Your task to perform on an android device: What's the news about the US stock market? Image 0: 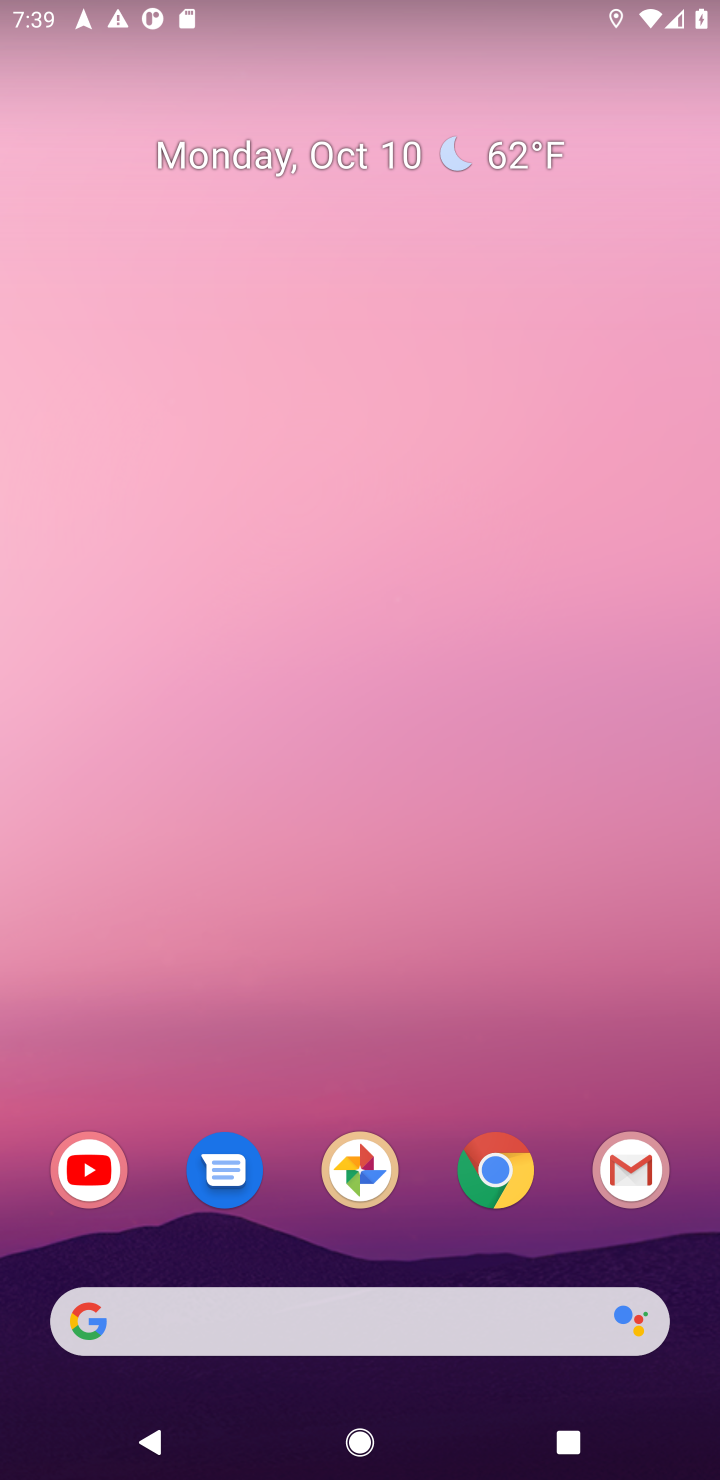
Step 0: press home button
Your task to perform on an android device: What's the news about the US stock market? Image 1: 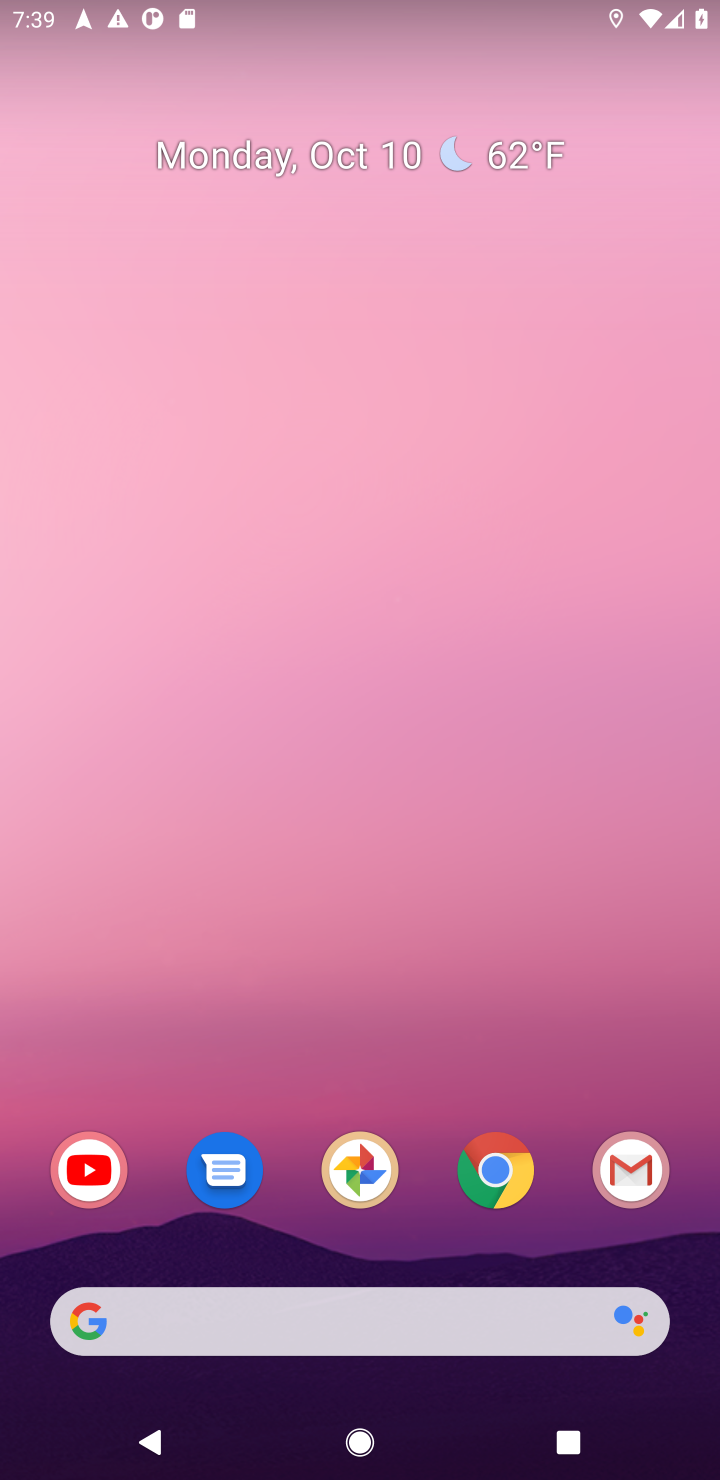
Step 1: click (497, 1187)
Your task to perform on an android device: What's the news about the US stock market? Image 2: 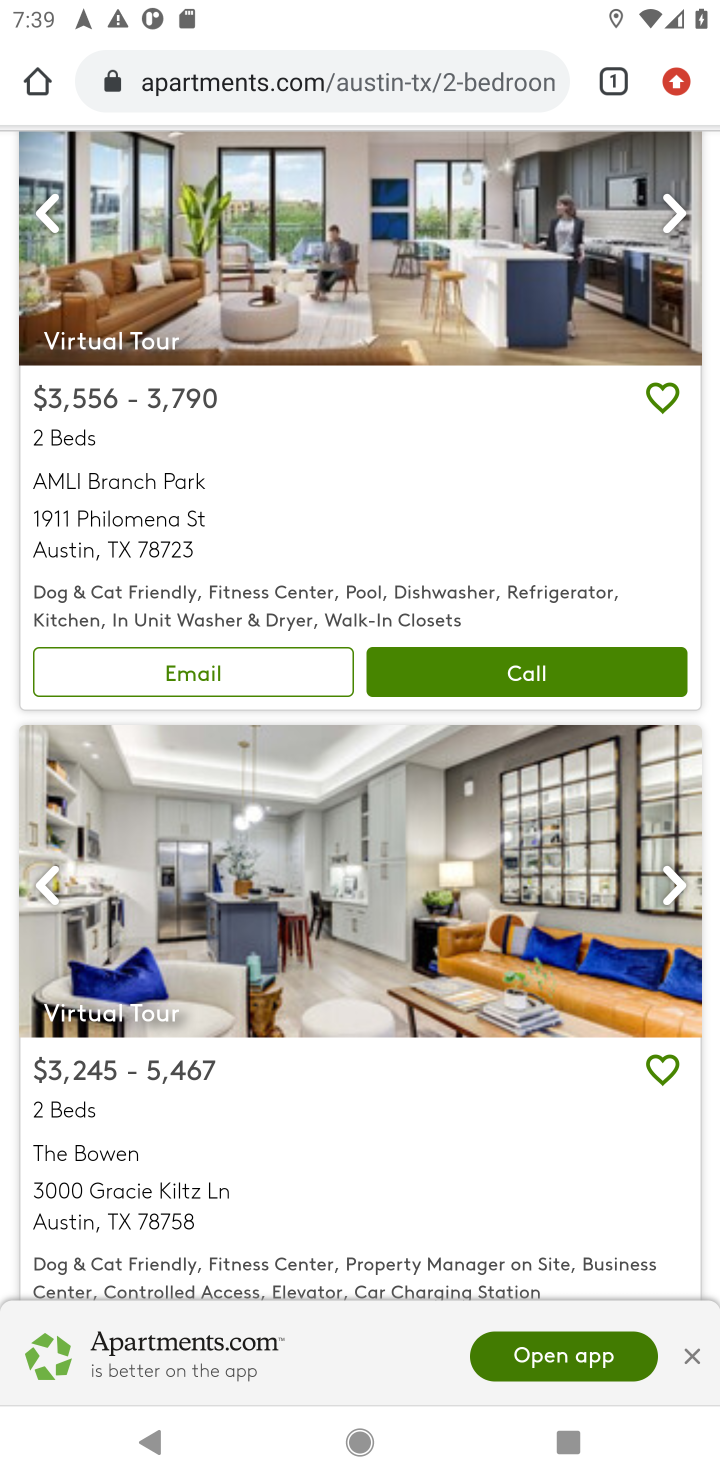
Step 2: click (414, 95)
Your task to perform on an android device: What's the news about the US stock market? Image 3: 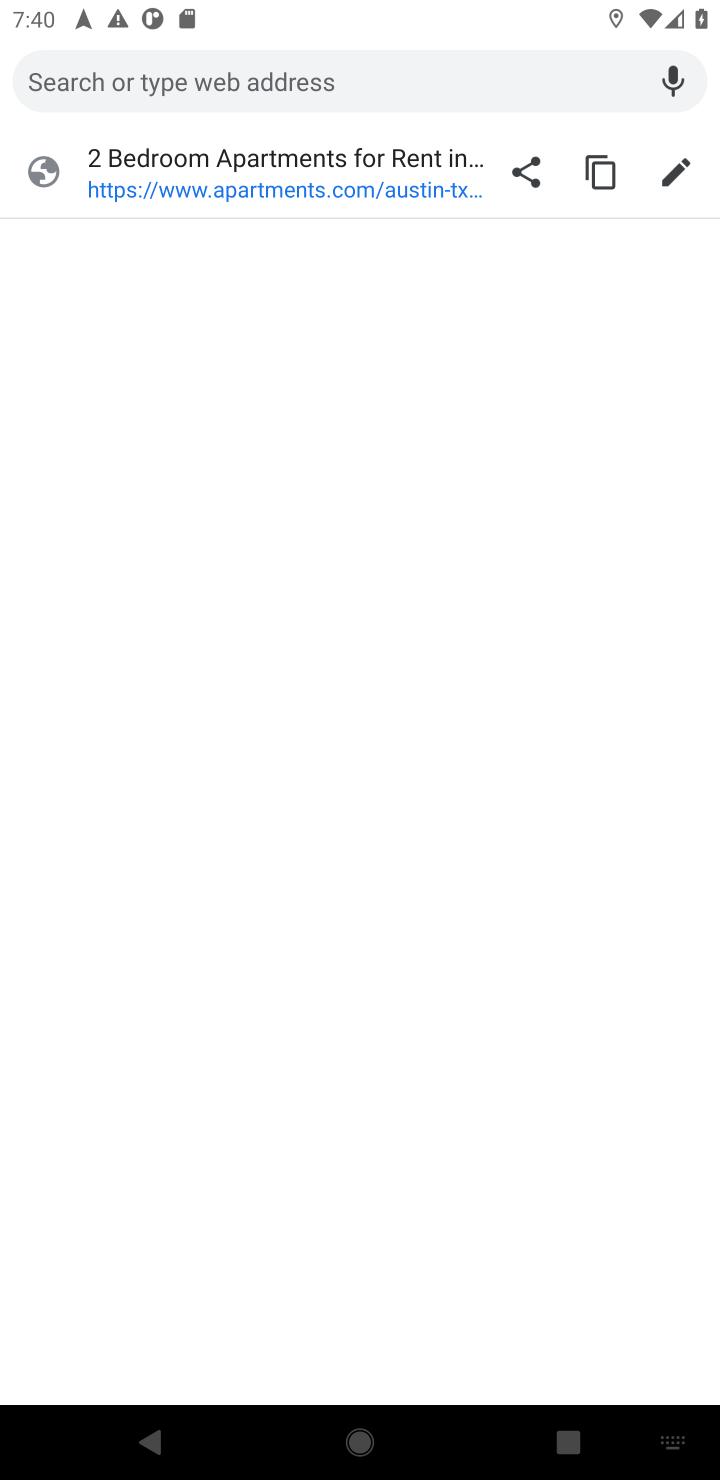
Step 3: type "US stock market"
Your task to perform on an android device: What's the news about the US stock market? Image 4: 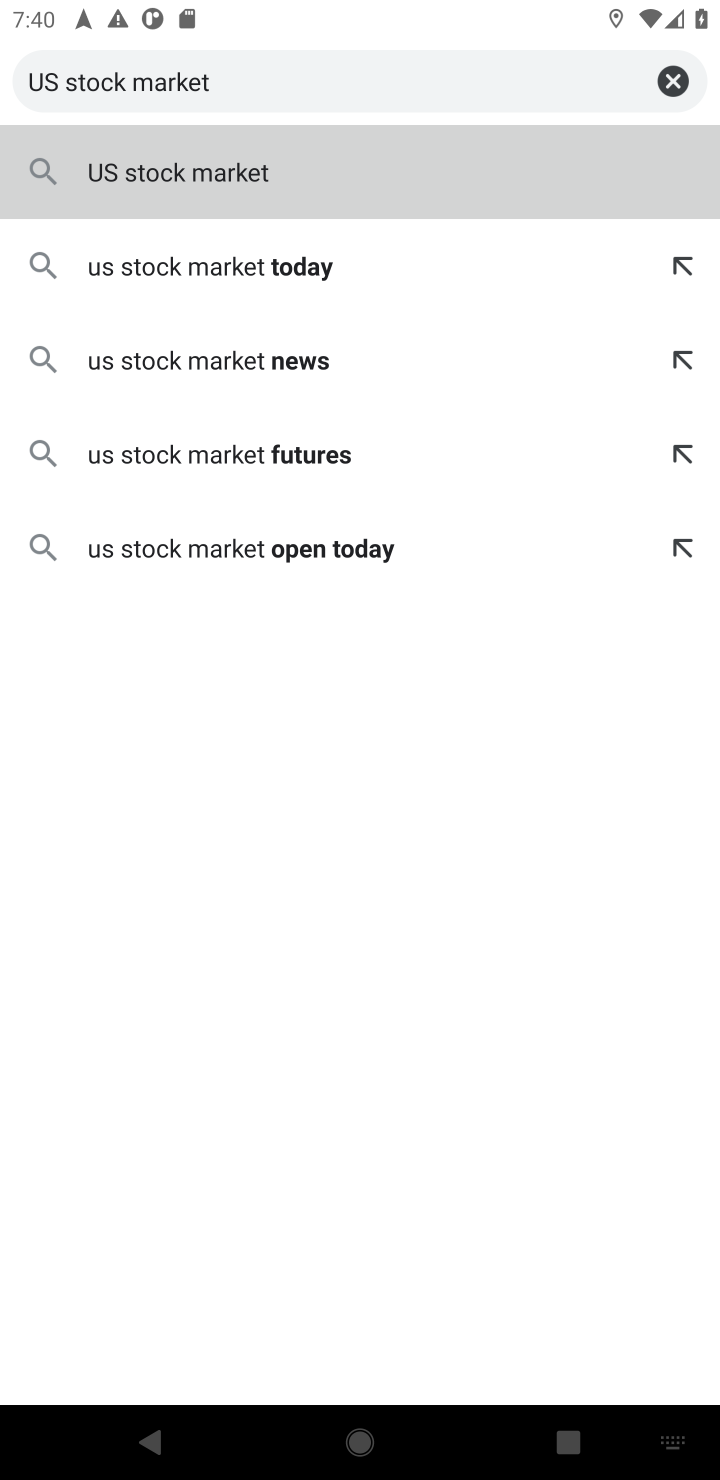
Step 4: click (413, 182)
Your task to perform on an android device: What's the news about the US stock market? Image 5: 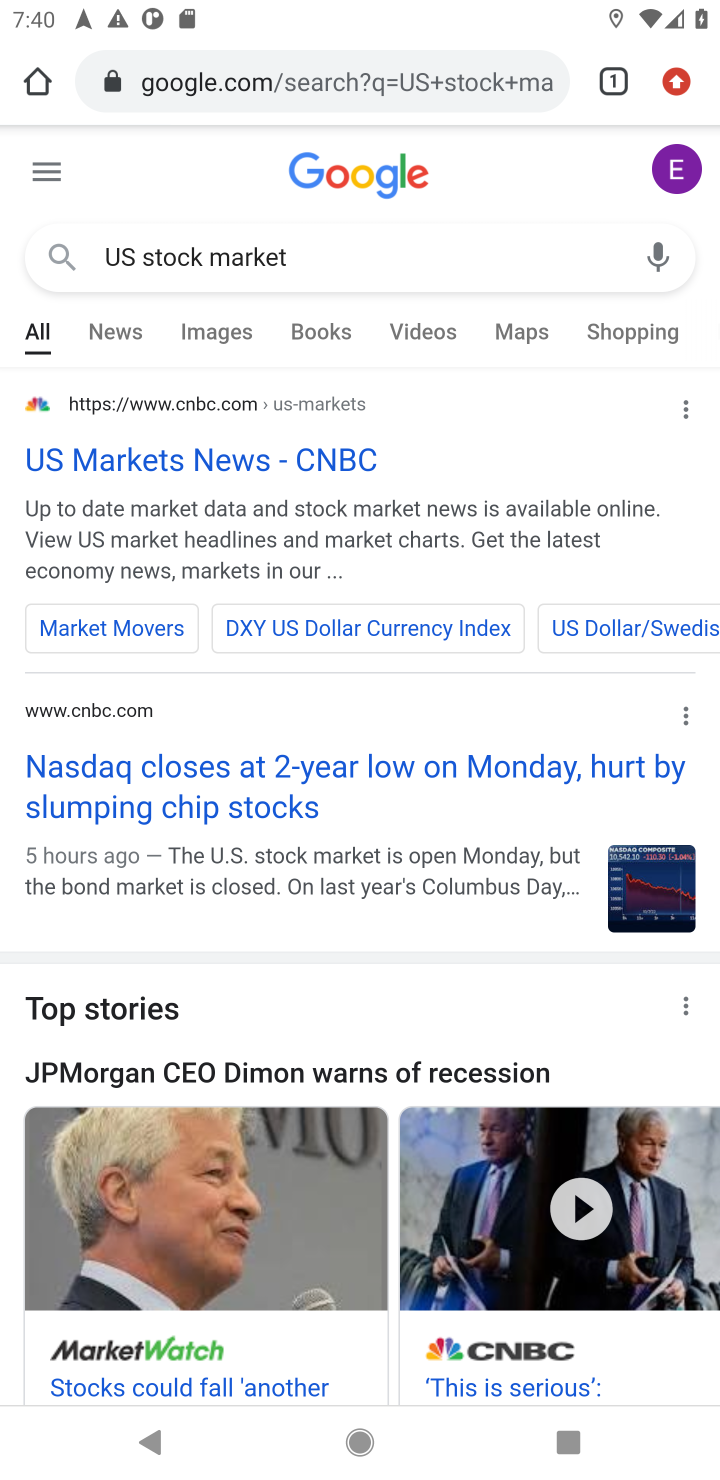
Step 5: click (105, 336)
Your task to perform on an android device: What's the news about the US stock market? Image 6: 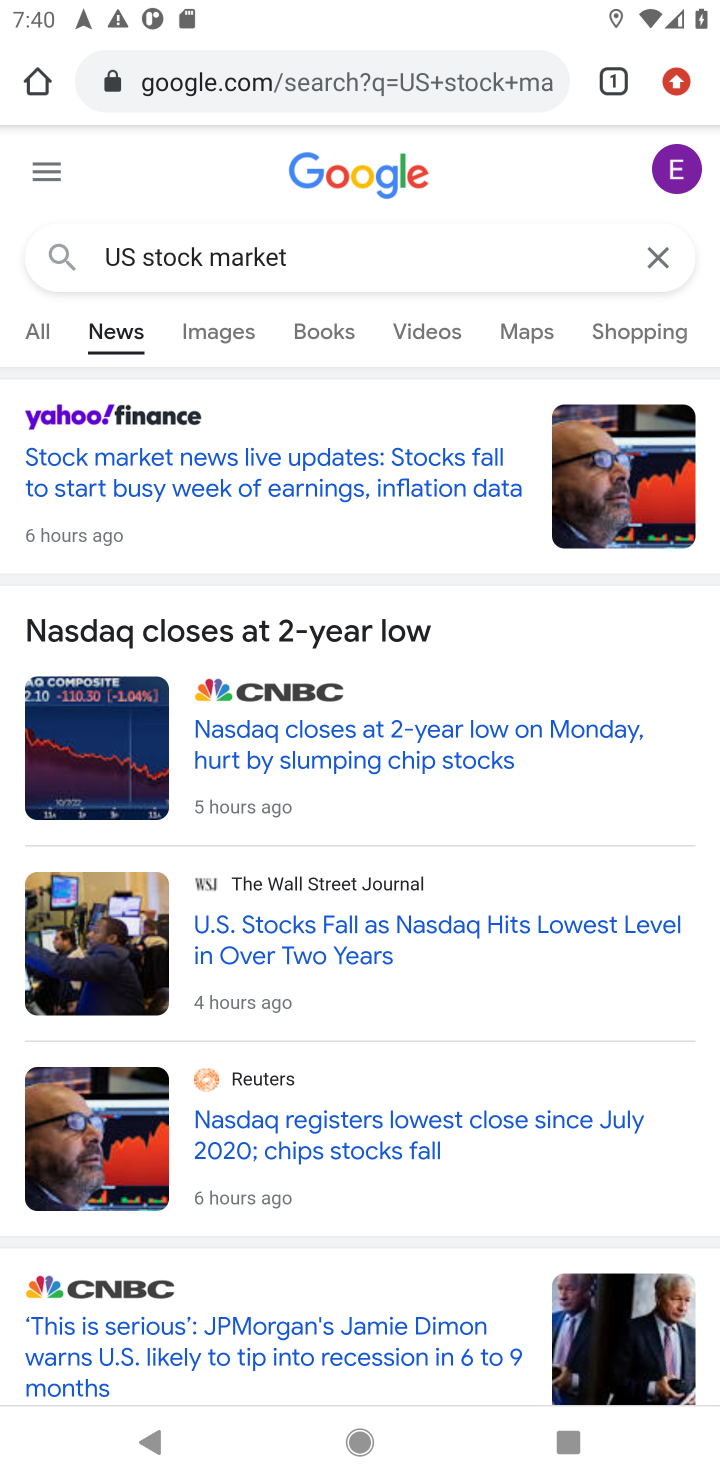
Step 6: task complete